Your task to perform on an android device: Open the calendar app, open the side menu, and click the "Day" option Image 0: 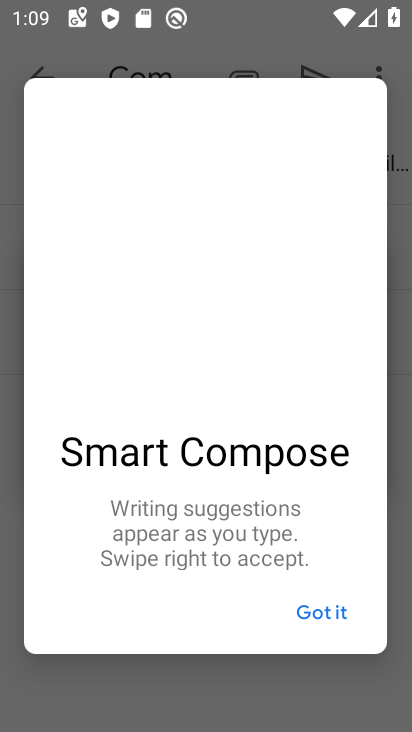
Step 0: press home button
Your task to perform on an android device: Open the calendar app, open the side menu, and click the "Day" option Image 1: 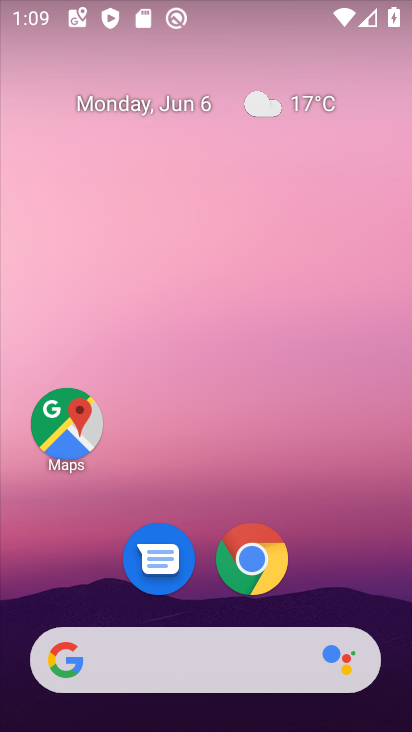
Step 1: drag from (336, 558) to (320, 145)
Your task to perform on an android device: Open the calendar app, open the side menu, and click the "Day" option Image 2: 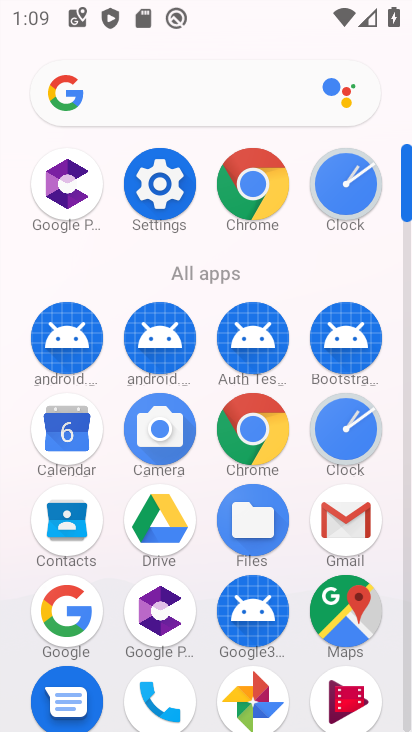
Step 2: click (64, 443)
Your task to perform on an android device: Open the calendar app, open the side menu, and click the "Day" option Image 3: 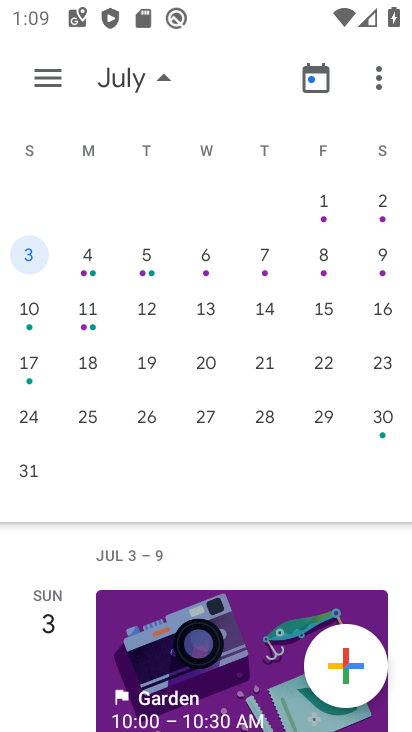
Step 3: click (41, 86)
Your task to perform on an android device: Open the calendar app, open the side menu, and click the "Day" option Image 4: 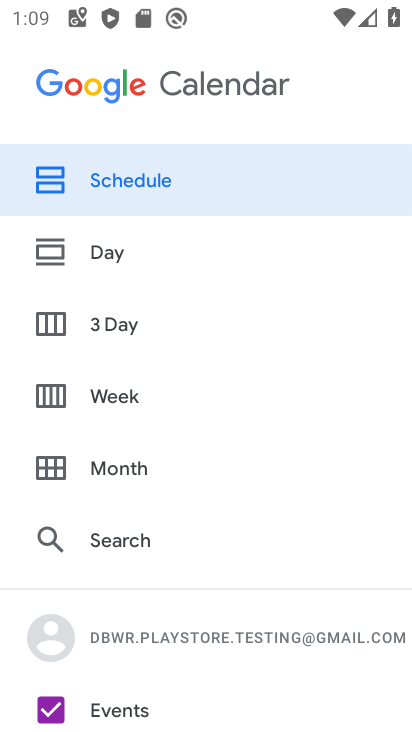
Step 4: click (102, 254)
Your task to perform on an android device: Open the calendar app, open the side menu, and click the "Day" option Image 5: 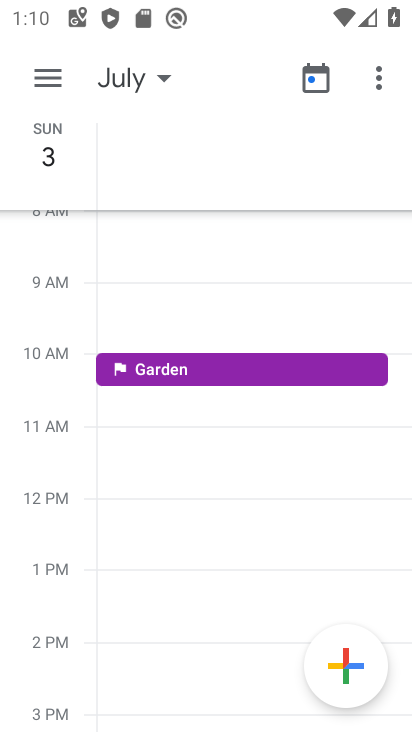
Step 5: task complete